Your task to perform on an android device: Go to privacy settings Image 0: 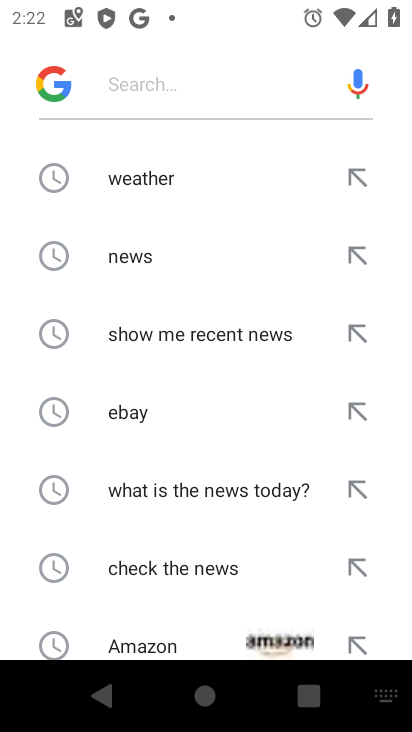
Step 0: press home button
Your task to perform on an android device: Go to privacy settings Image 1: 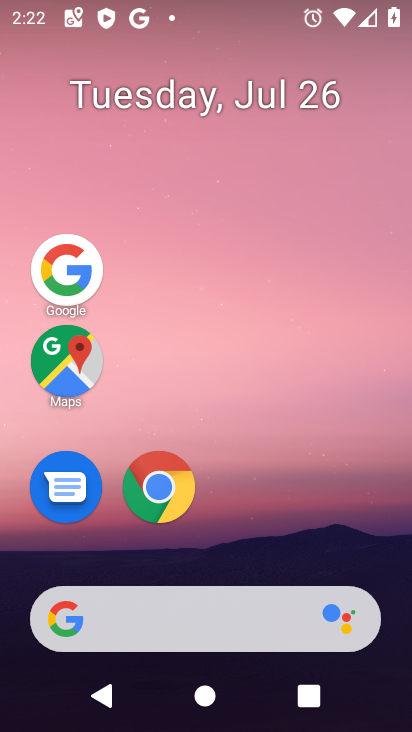
Step 1: drag from (171, 615) to (202, 233)
Your task to perform on an android device: Go to privacy settings Image 2: 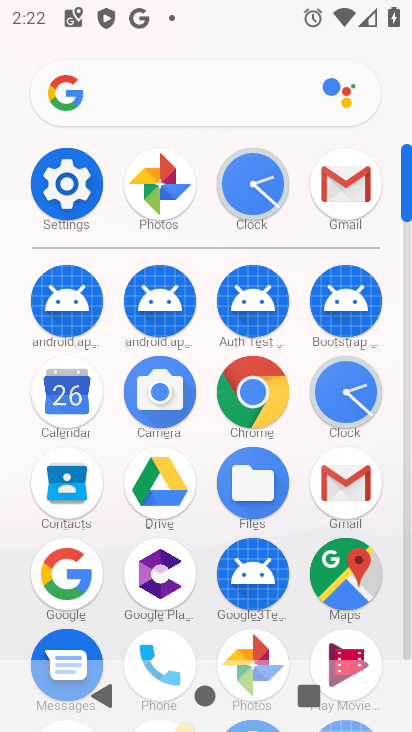
Step 2: click (75, 189)
Your task to perform on an android device: Go to privacy settings Image 3: 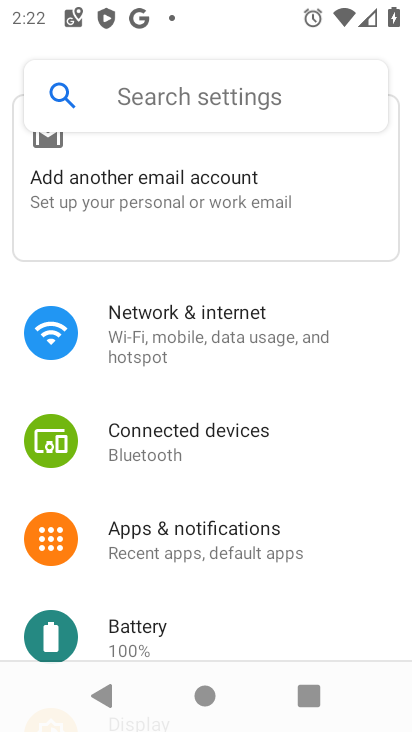
Step 3: drag from (147, 505) to (174, 54)
Your task to perform on an android device: Go to privacy settings Image 4: 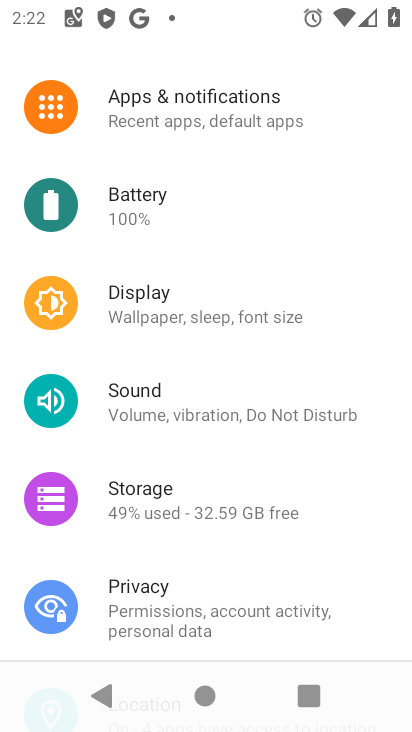
Step 4: click (146, 619)
Your task to perform on an android device: Go to privacy settings Image 5: 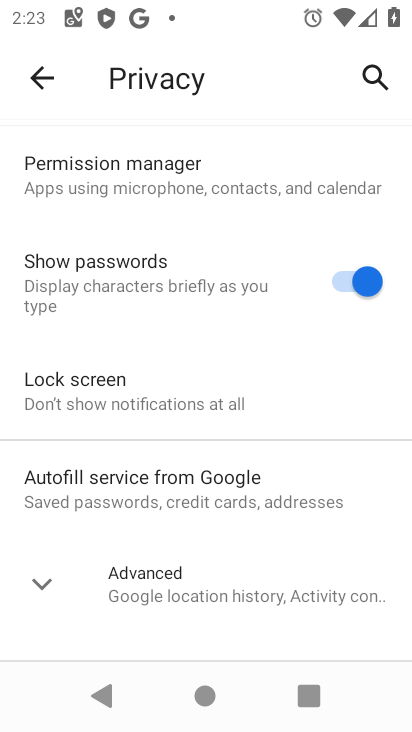
Step 5: task complete